Your task to perform on an android device: open chrome and create a bookmark for the current page Image 0: 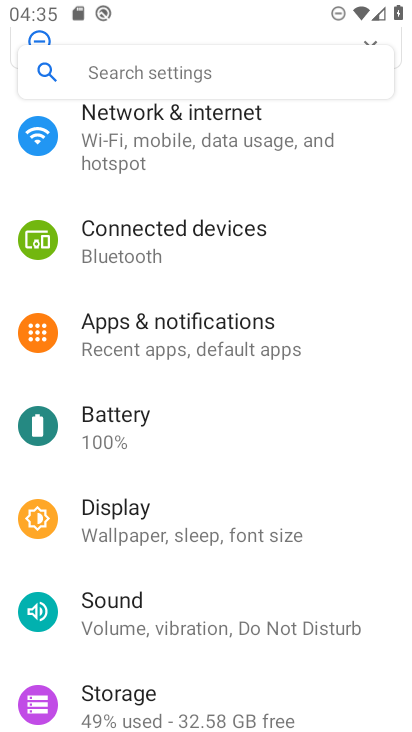
Step 0: press home button
Your task to perform on an android device: open chrome and create a bookmark for the current page Image 1: 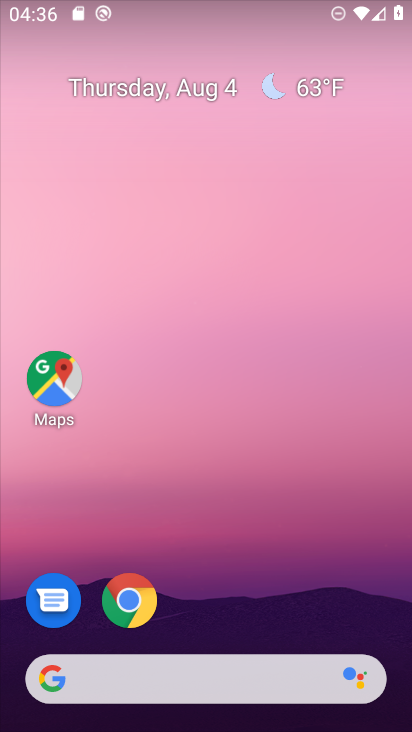
Step 1: click (137, 188)
Your task to perform on an android device: open chrome and create a bookmark for the current page Image 2: 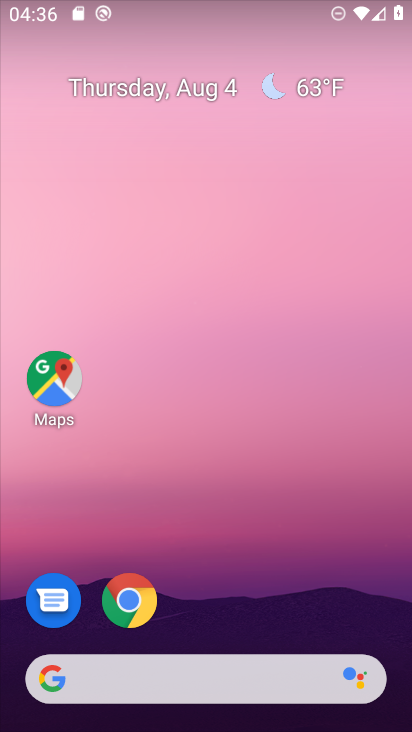
Step 2: drag from (247, 594) to (255, 115)
Your task to perform on an android device: open chrome and create a bookmark for the current page Image 3: 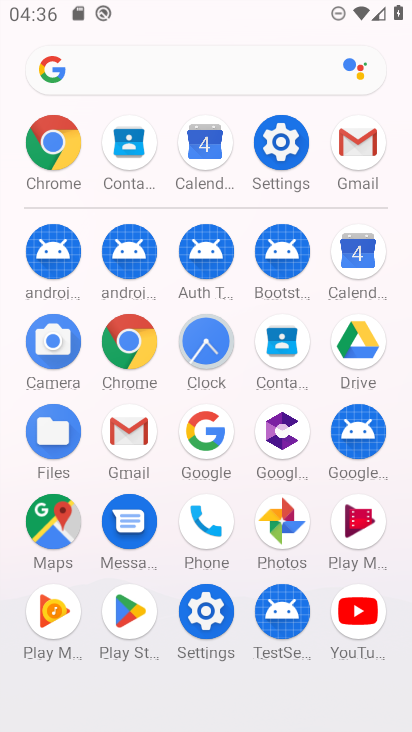
Step 3: click (125, 341)
Your task to perform on an android device: open chrome and create a bookmark for the current page Image 4: 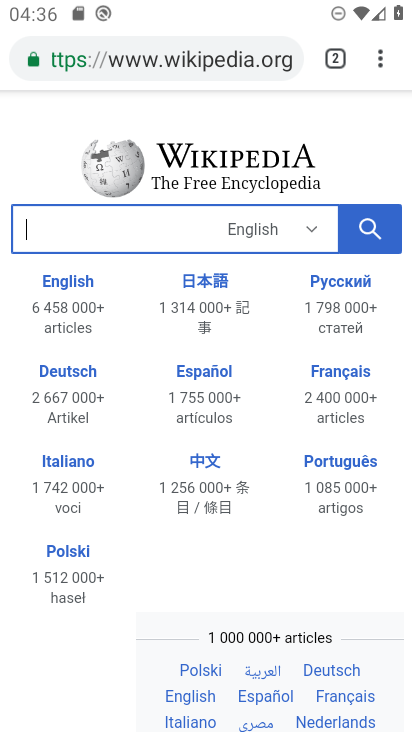
Step 4: task complete